Your task to perform on an android device: Open display settings Image 0: 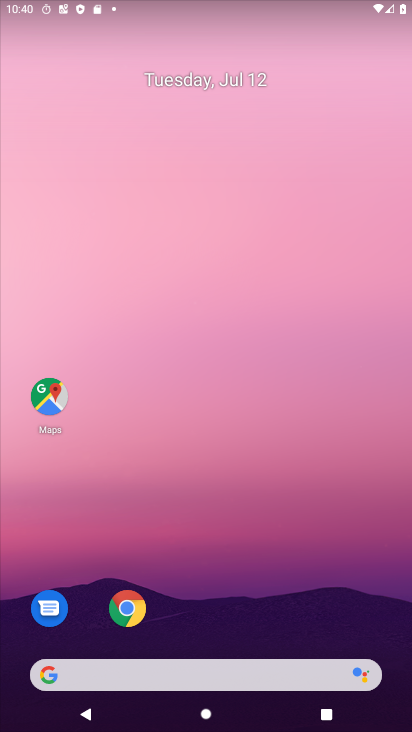
Step 0: drag from (251, 615) to (290, 133)
Your task to perform on an android device: Open display settings Image 1: 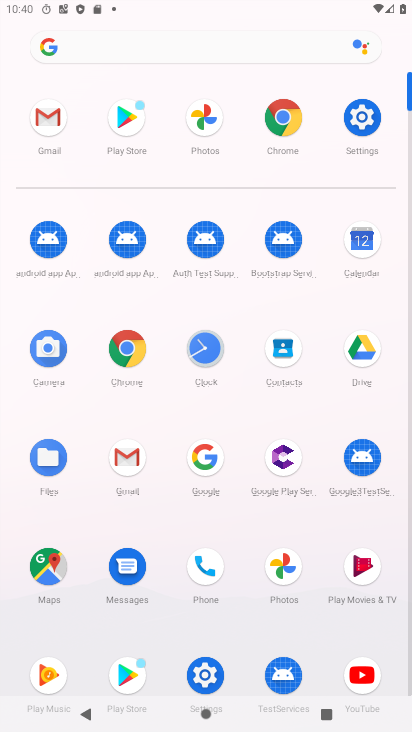
Step 1: click (362, 130)
Your task to perform on an android device: Open display settings Image 2: 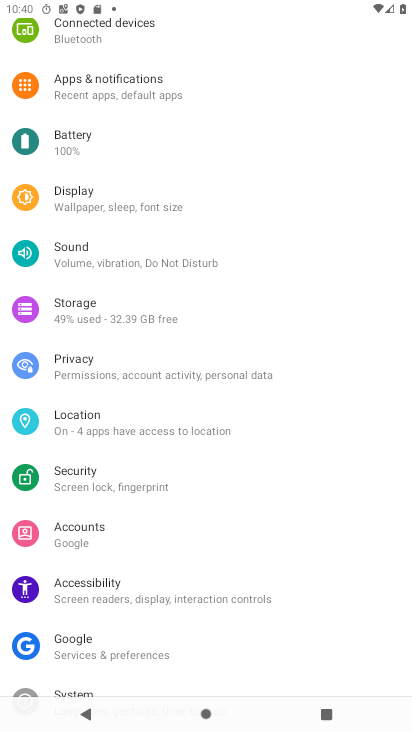
Step 2: click (139, 195)
Your task to perform on an android device: Open display settings Image 3: 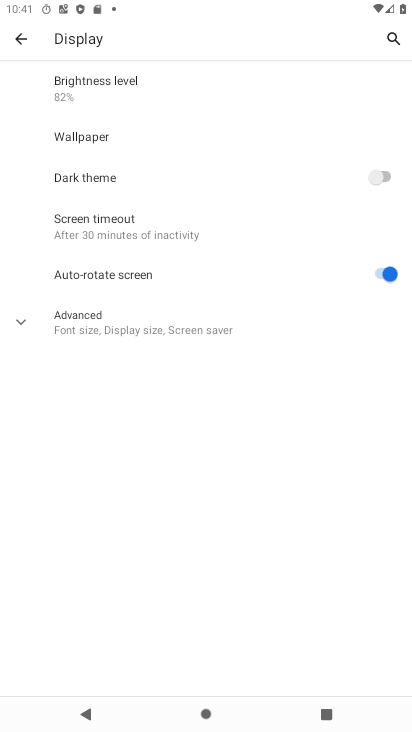
Step 3: task complete